Your task to perform on an android device: When is my next appointment? Image 0: 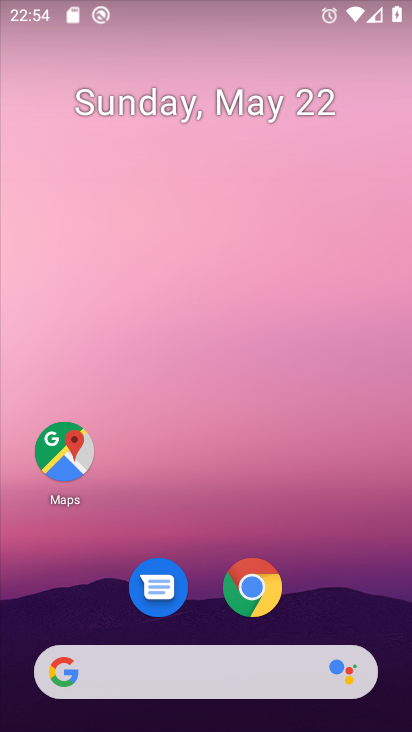
Step 0: drag from (218, 494) to (255, 9)
Your task to perform on an android device: When is my next appointment? Image 1: 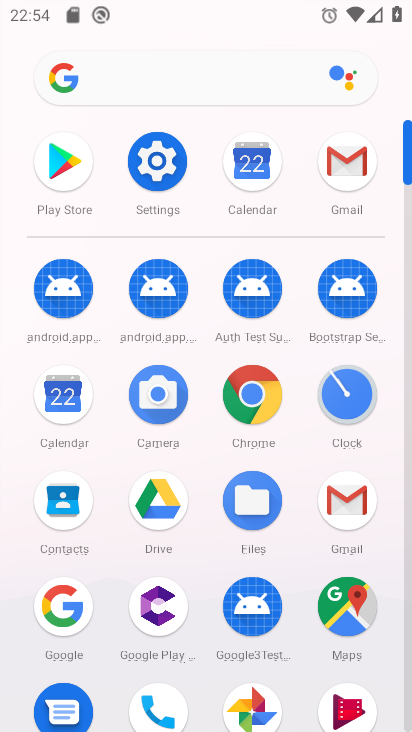
Step 1: click (252, 153)
Your task to perform on an android device: When is my next appointment? Image 2: 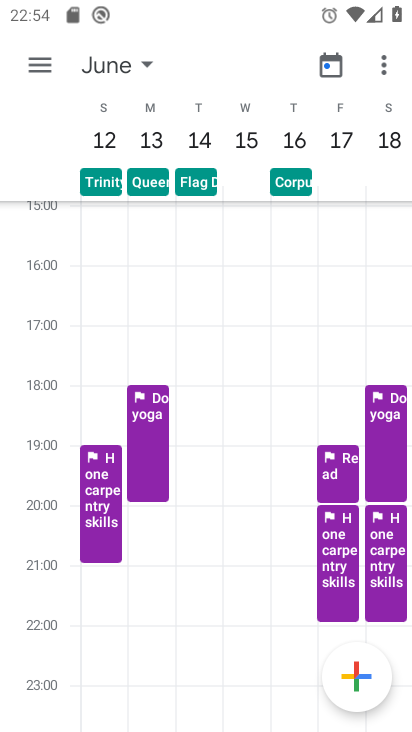
Step 2: drag from (91, 256) to (410, 274)
Your task to perform on an android device: When is my next appointment? Image 3: 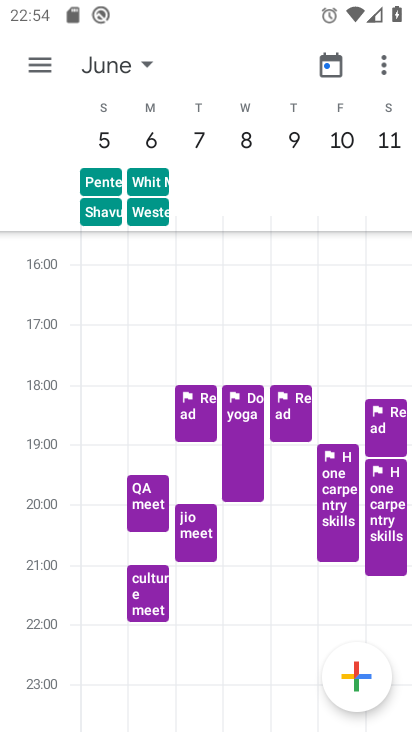
Step 3: drag from (108, 340) to (405, 352)
Your task to perform on an android device: When is my next appointment? Image 4: 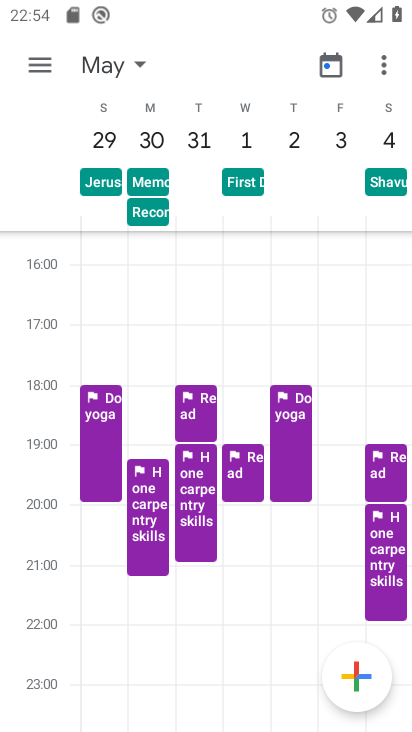
Step 4: drag from (86, 349) to (396, 362)
Your task to perform on an android device: When is my next appointment? Image 5: 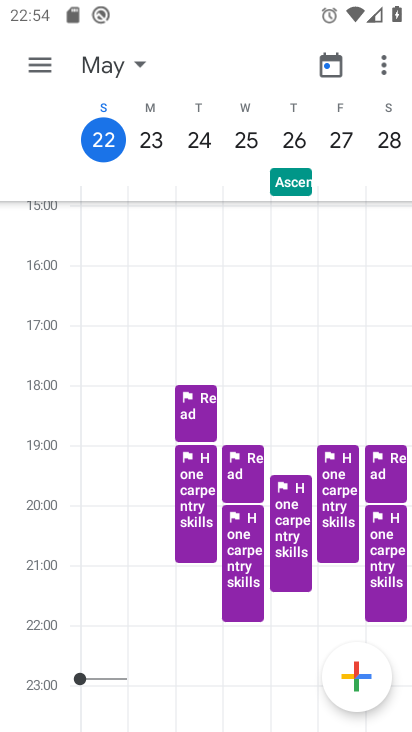
Step 5: drag from (115, 326) to (270, 346)
Your task to perform on an android device: When is my next appointment? Image 6: 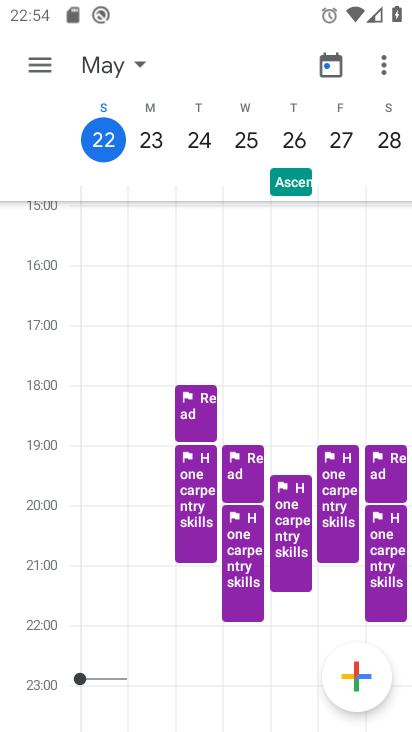
Step 6: click (118, 141)
Your task to perform on an android device: When is my next appointment? Image 7: 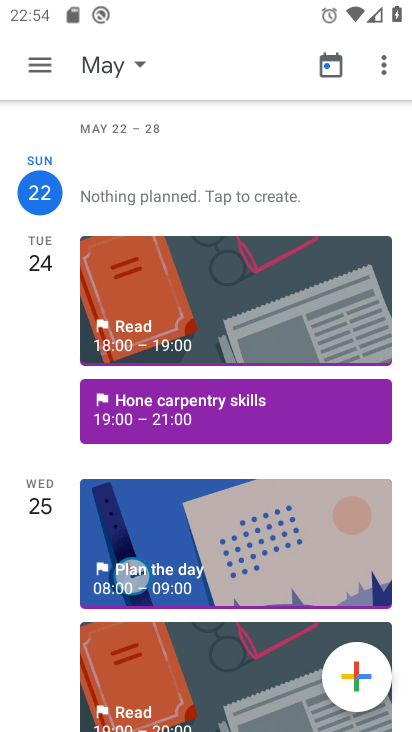
Step 7: task complete